Your task to perform on an android device: make emails show in primary in the gmail app Image 0: 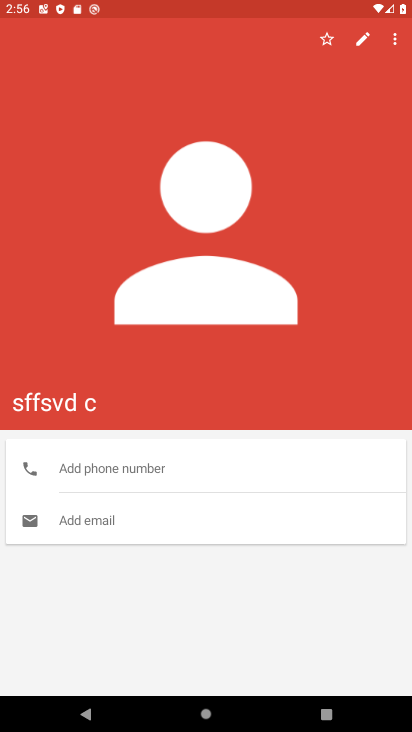
Step 0: task complete